Your task to perform on an android device: turn on notifications settings in the gmail app Image 0: 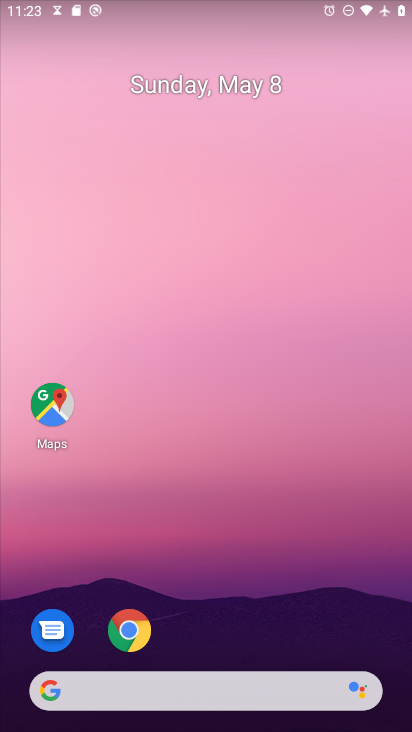
Step 0: drag from (166, 690) to (367, 103)
Your task to perform on an android device: turn on notifications settings in the gmail app Image 1: 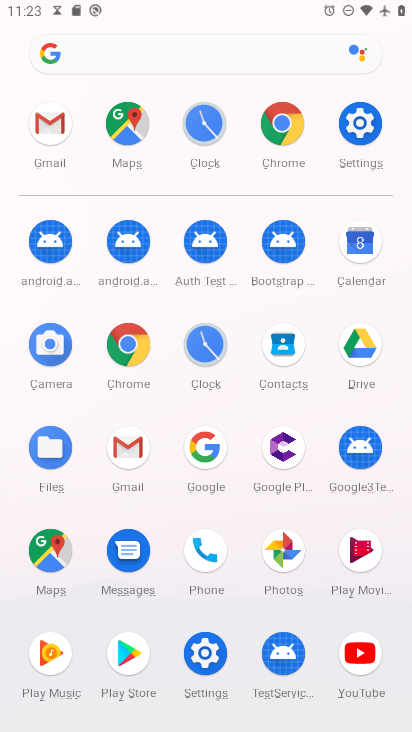
Step 1: click (48, 132)
Your task to perform on an android device: turn on notifications settings in the gmail app Image 2: 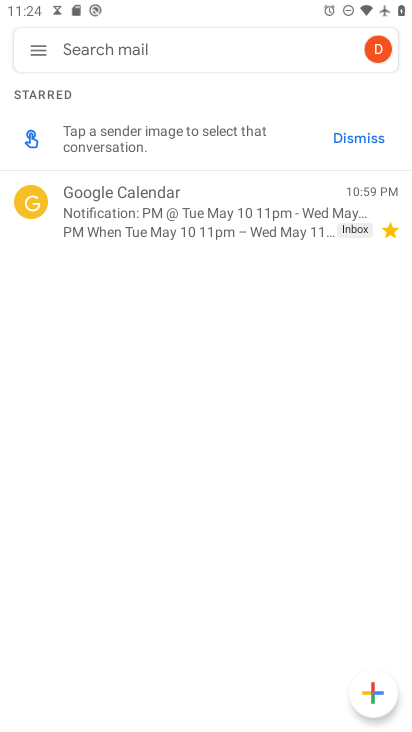
Step 2: click (39, 50)
Your task to perform on an android device: turn on notifications settings in the gmail app Image 3: 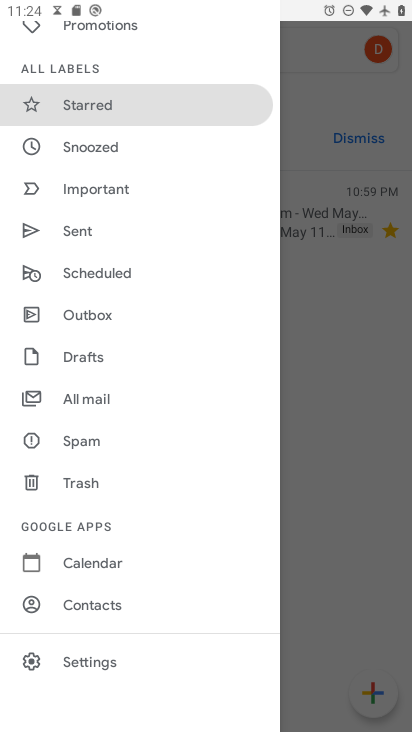
Step 3: click (98, 658)
Your task to perform on an android device: turn on notifications settings in the gmail app Image 4: 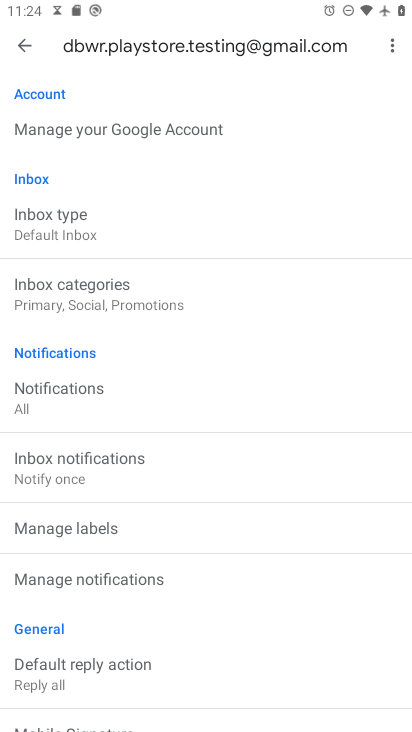
Step 4: click (52, 395)
Your task to perform on an android device: turn on notifications settings in the gmail app Image 5: 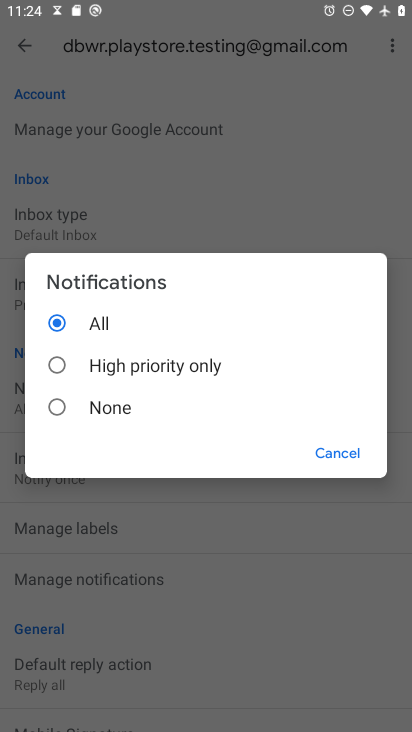
Step 5: task complete